Your task to perform on an android device: change your default location settings in chrome Image 0: 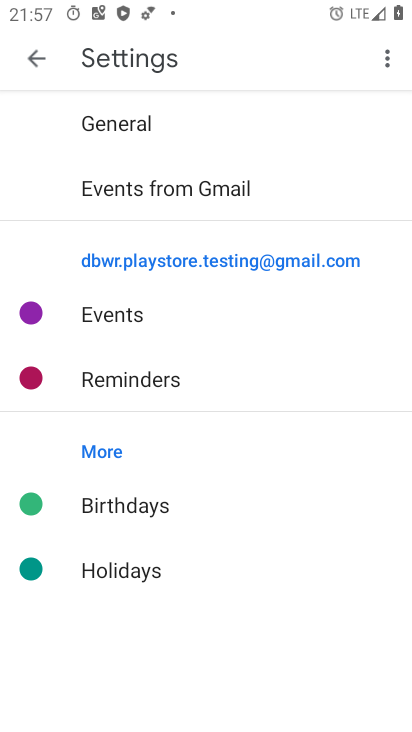
Step 0: press home button
Your task to perform on an android device: change your default location settings in chrome Image 1: 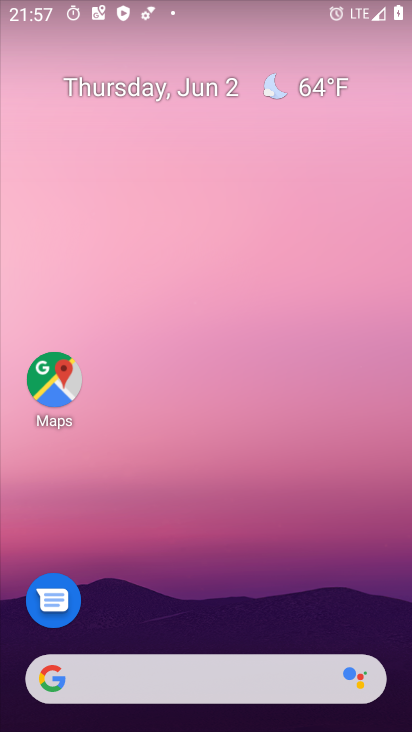
Step 1: drag from (161, 517) to (178, 93)
Your task to perform on an android device: change your default location settings in chrome Image 2: 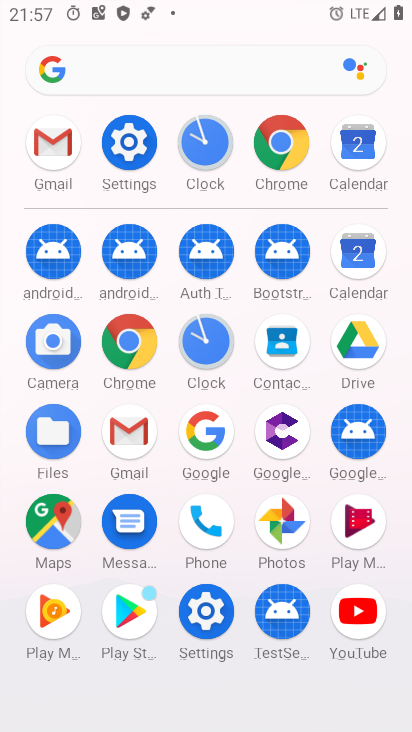
Step 2: click (288, 142)
Your task to perform on an android device: change your default location settings in chrome Image 3: 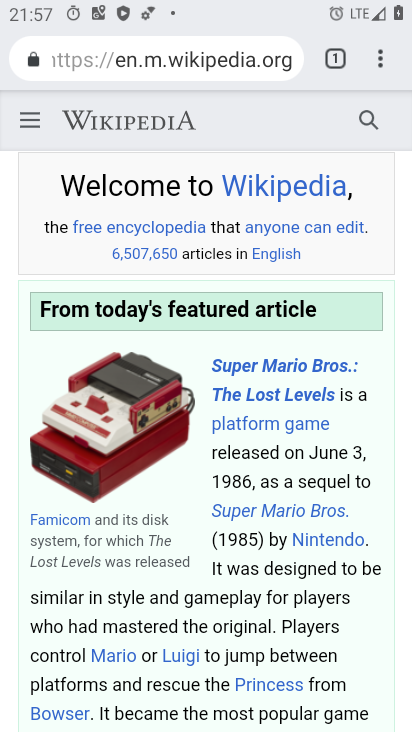
Step 3: press back button
Your task to perform on an android device: change your default location settings in chrome Image 4: 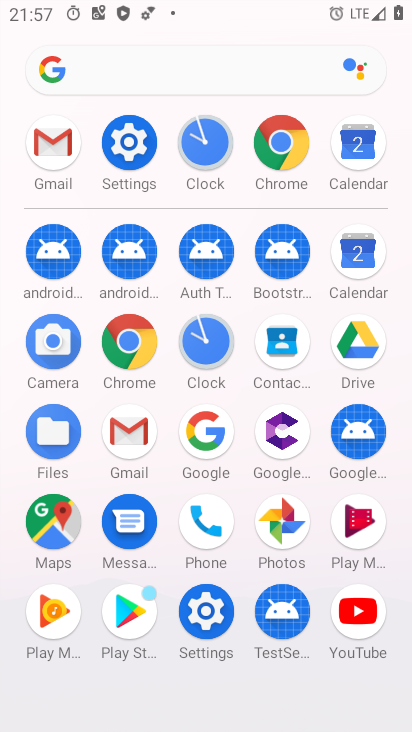
Step 4: click (288, 143)
Your task to perform on an android device: change your default location settings in chrome Image 5: 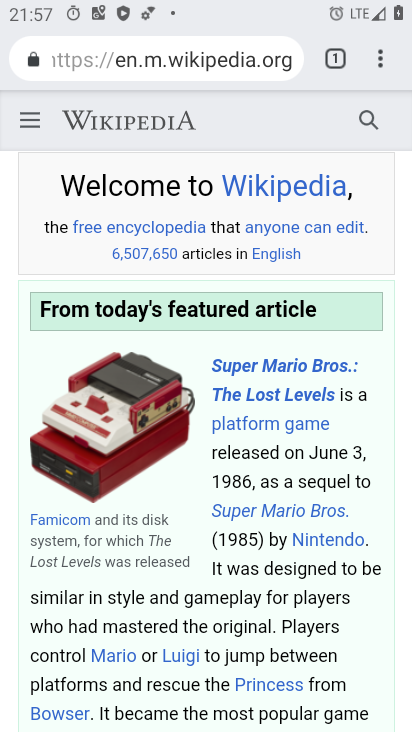
Step 5: click (374, 56)
Your task to perform on an android device: change your default location settings in chrome Image 6: 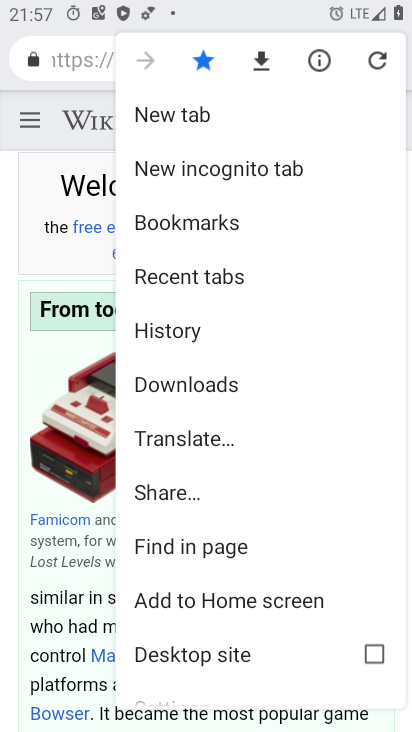
Step 6: drag from (203, 630) to (288, 106)
Your task to perform on an android device: change your default location settings in chrome Image 7: 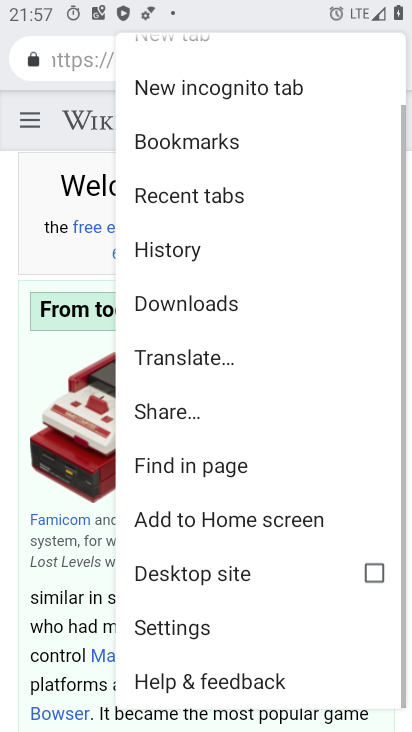
Step 7: click (177, 618)
Your task to perform on an android device: change your default location settings in chrome Image 8: 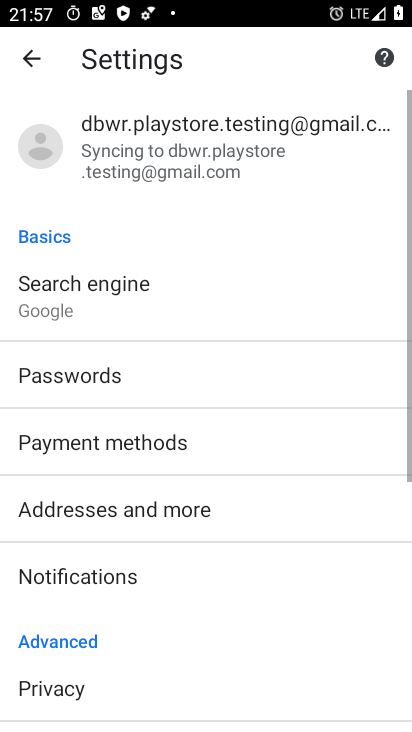
Step 8: drag from (169, 579) to (131, 94)
Your task to perform on an android device: change your default location settings in chrome Image 9: 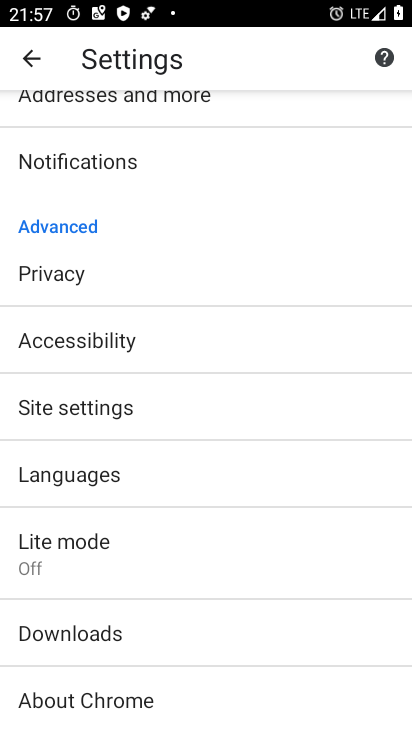
Step 9: click (64, 421)
Your task to perform on an android device: change your default location settings in chrome Image 10: 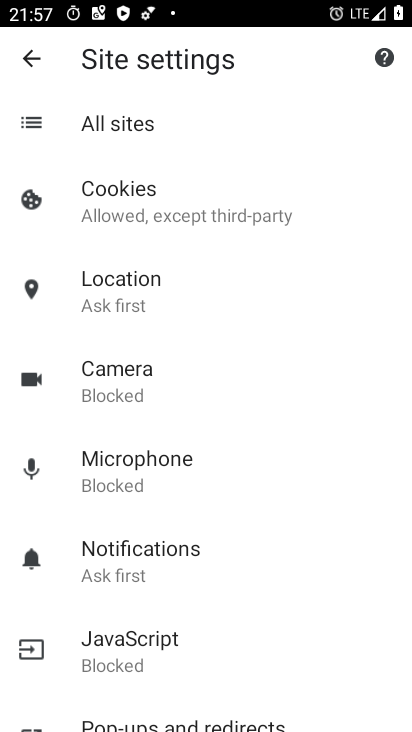
Step 10: drag from (163, 659) to (167, 508)
Your task to perform on an android device: change your default location settings in chrome Image 11: 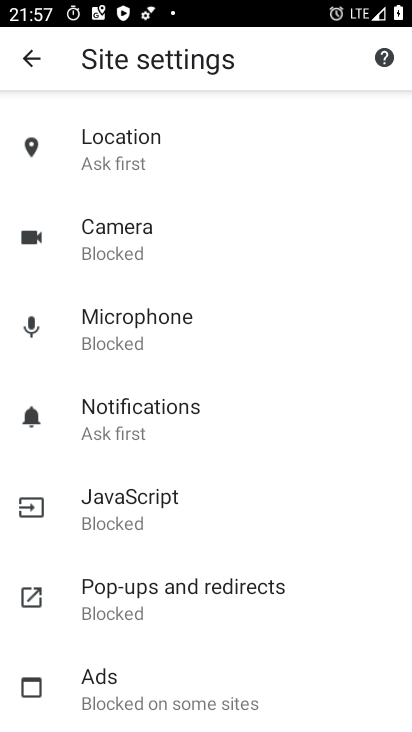
Step 11: click (136, 152)
Your task to perform on an android device: change your default location settings in chrome Image 12: 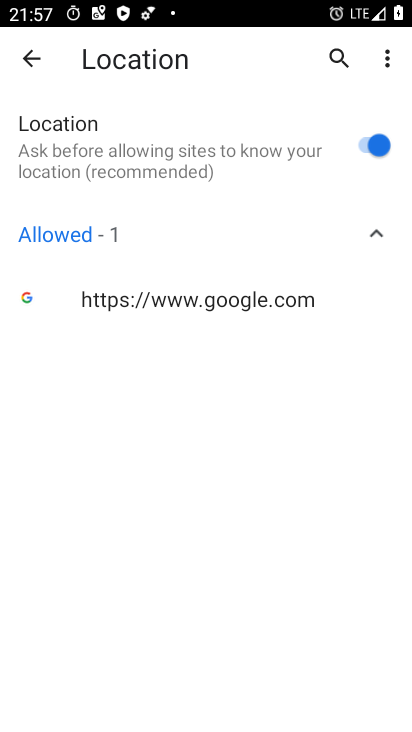
Step 12: click (376, 144)
Your task to perform on an android device: change your default location settings in chrome Image 13: 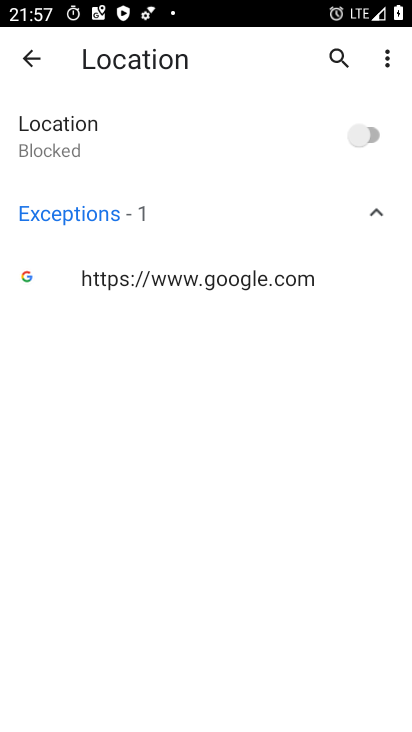
Step 13: task complete